Your task to perform on an android device: change notifications settings Image 0: 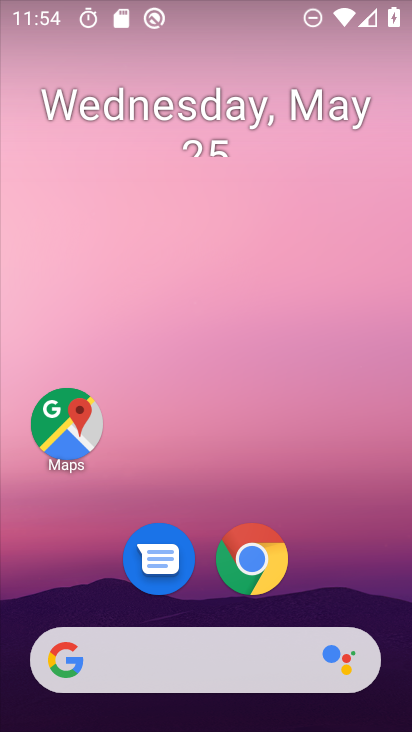
Step 0: drag from (332, 223) to (340, 136)
Your task to perform on an android device: change notifications settings Image 1: 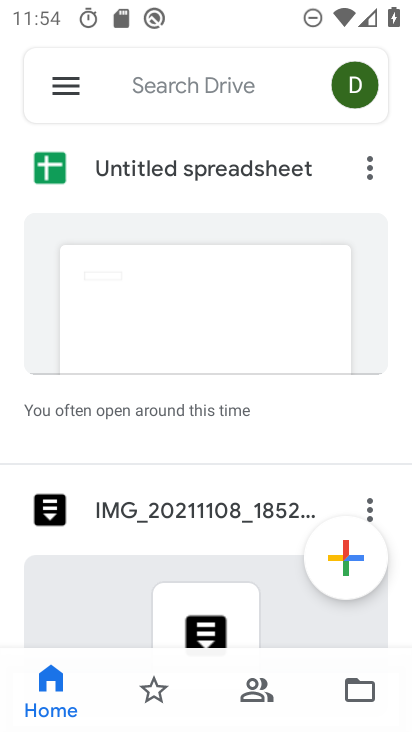
Step 1: press home button
Your task to perform on an android device: change notifications settings Image 2: 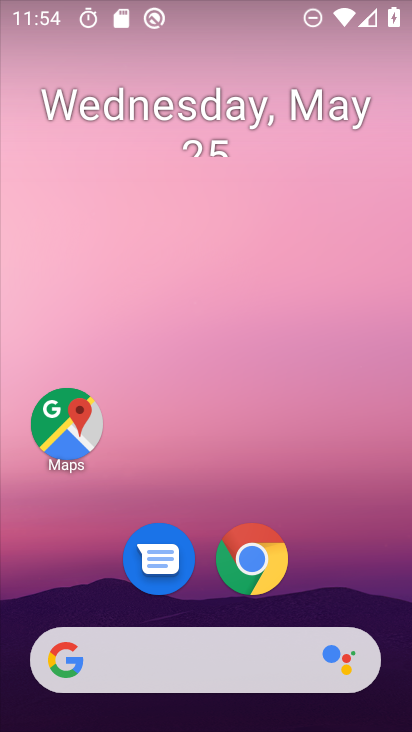
Step 2: drag from (355, 520) to (369, 78)
Your task to perform on an android device: change notifications settings Image 3: 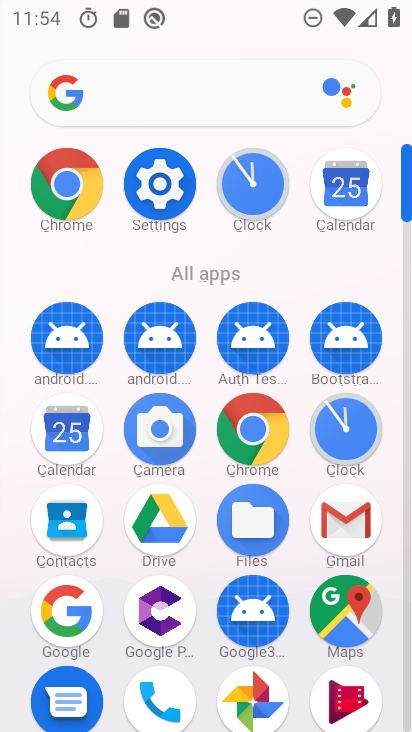
Step 3: click (159, 180)
Your task to perform on an android device: change notifications settings Image 4: 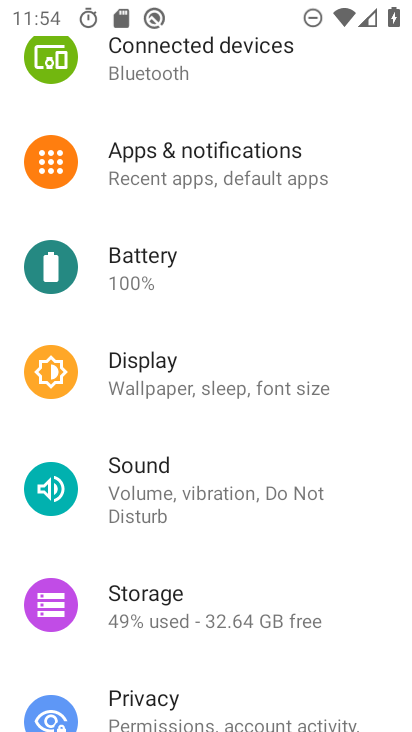
Step 4: click (207, 166)
Your task to perform on an android device: change notifications settings Image 5: 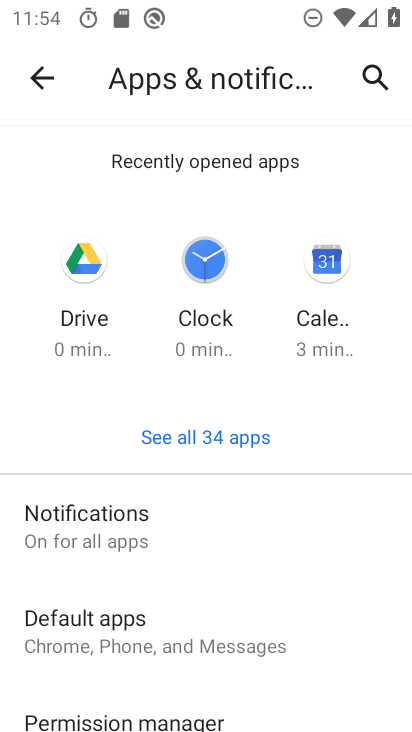
Step 5: click (152, 532)
Your task to perform on an android device: change notifications settings Image 6: 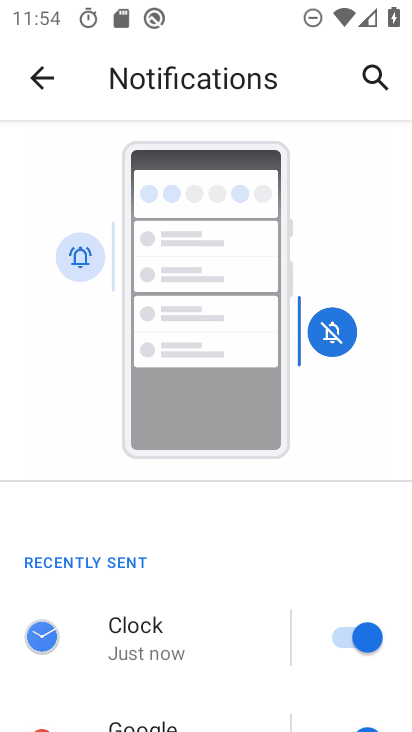
Step 6: task complete